Your task to perform on an android device: Open notification settings Image 0: 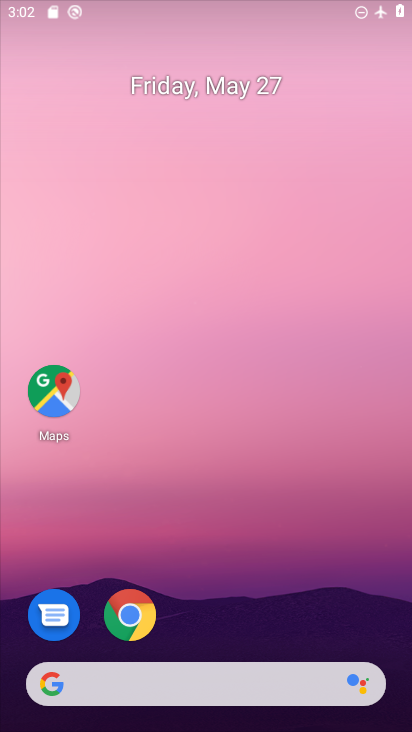
Step 0: drag from (310, 537) to (101, 103)
Your task to perform on an android device: Open notification settings Image 1: 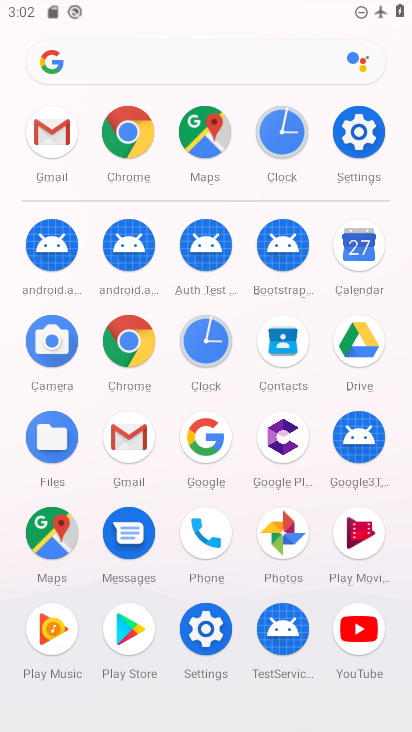
Step 1: click (358, 141)
Your task to perform on an android device: Open notification settings Image 2: 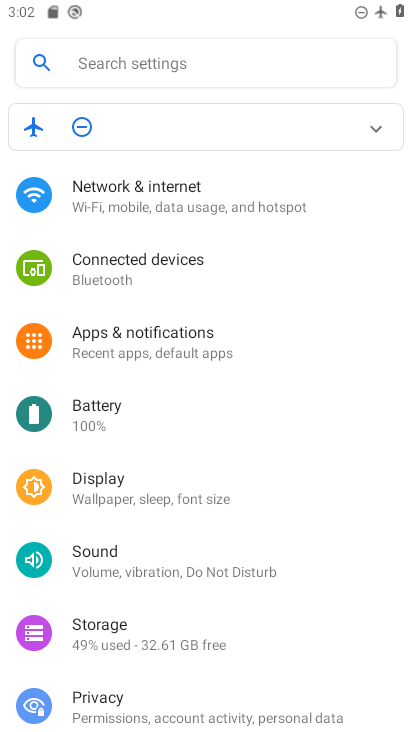
Step 2: click (222, 354)
Your task to perform on an android device: Open notification settings Image 3: 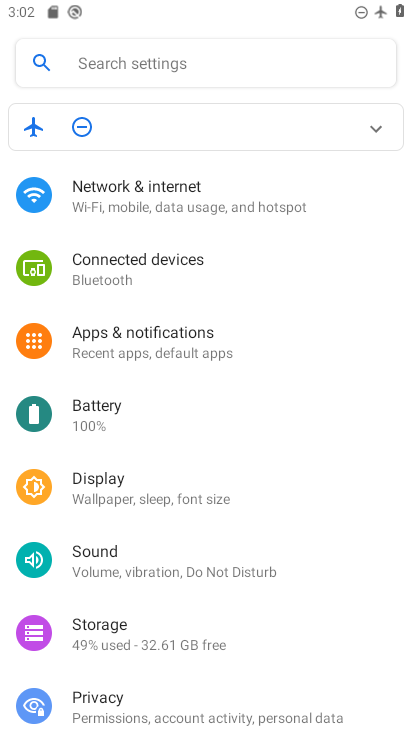
Step 3: task complete